Your task to perform on an android device: turn off location Image 0: 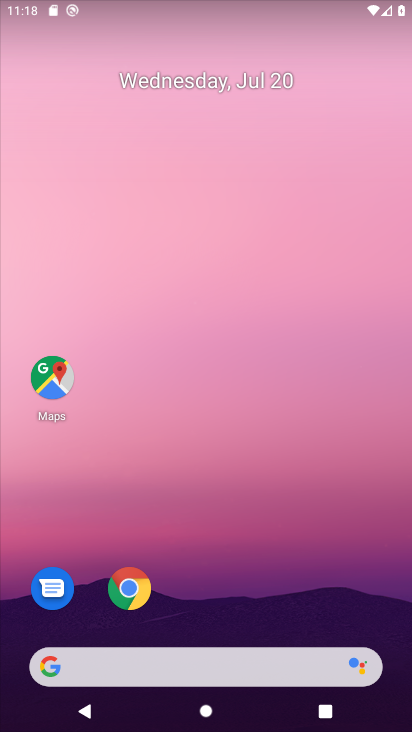
Step 0: press home button
Your task to perform on an android device: turn off location Image 1: 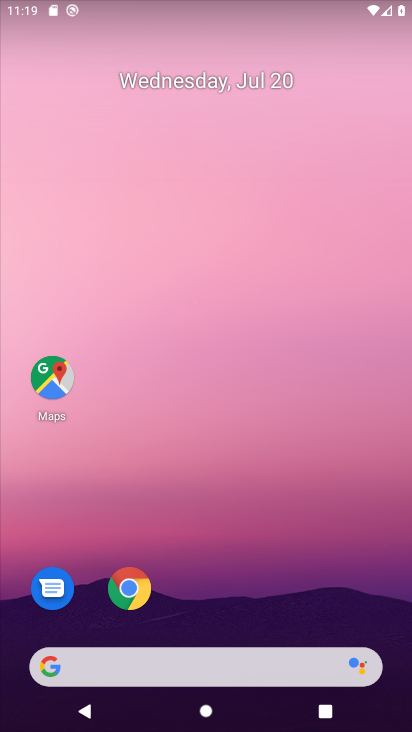
Step 1: drag from (231, 623) to (255, 6)
Your task to perform on an android device: turn off location Image 2: 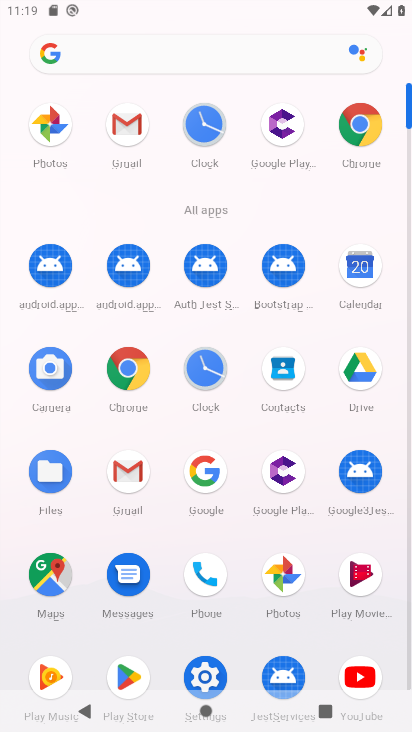
Step 2: click (203, 663)
Your task to perform on an android device: turn off location Image 3: 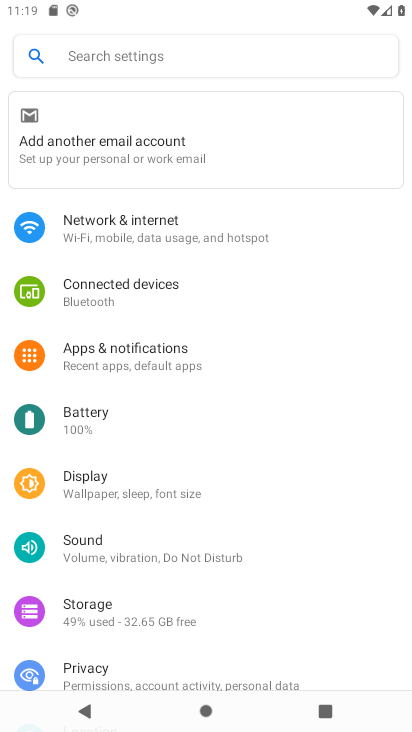
Step 3: drag from (152, 656) to (187, 256)
Your task to perform on an android device: turn off location Image 4: 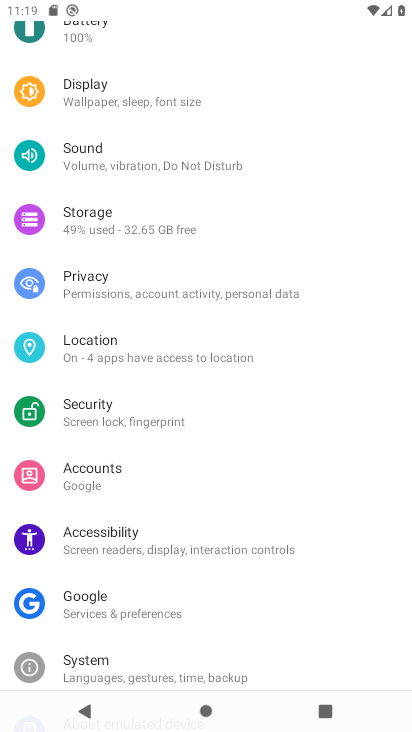
Step 4: click (125, 338)
Your task to perform on an android device: turn off location Image 5: 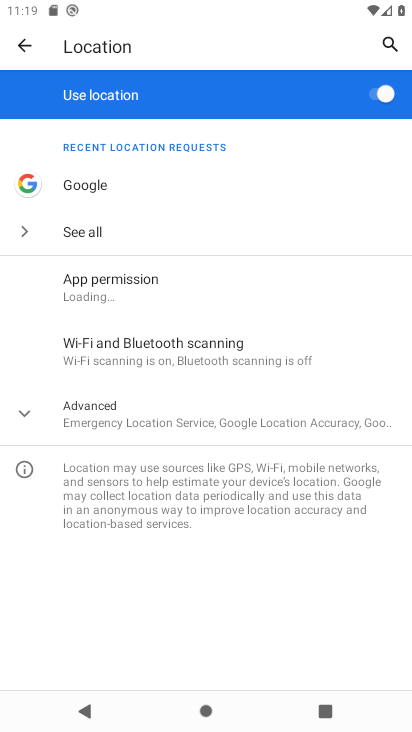
Step 5: click (374, 91)
Your task to perform on an android device: turn off location Image 6: 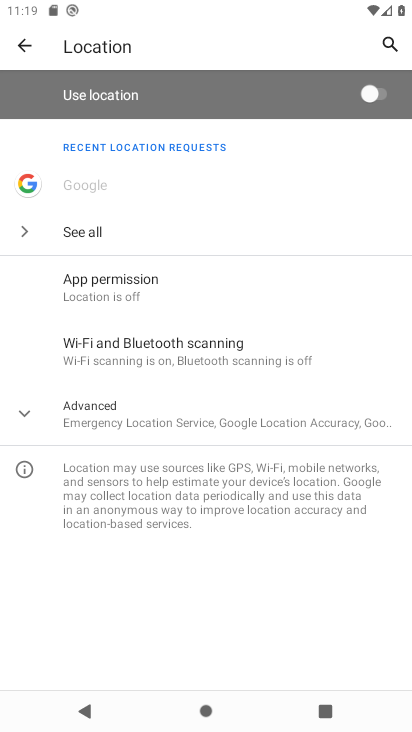
Step 6: task complete